Your task to perform on an android device: Open Google Maps and go to "Timeline" Image 0: 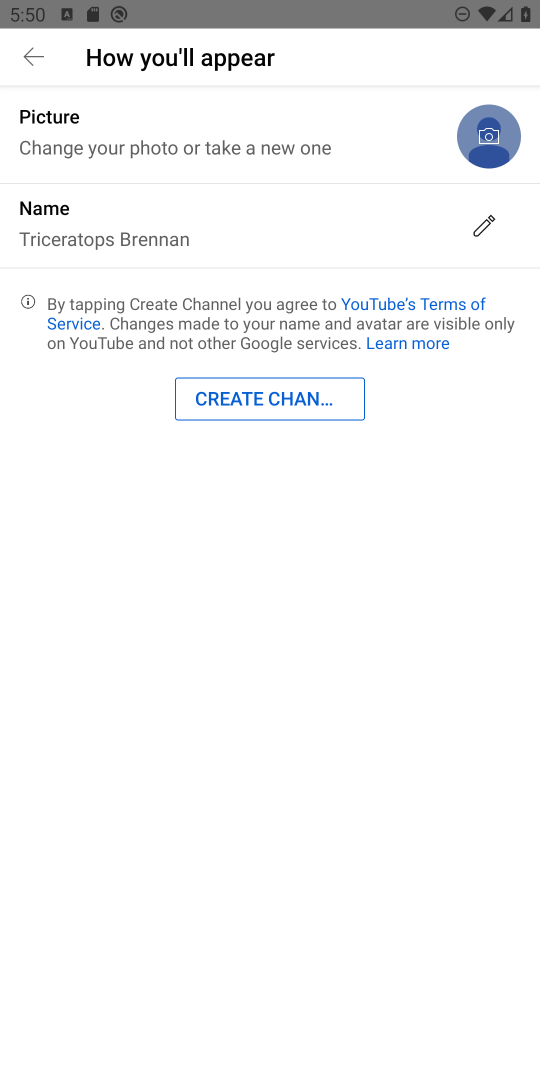
Step 0: press home button
Your task to perform on an android device: Open Google Maps and go to "Timeline" Image 1: 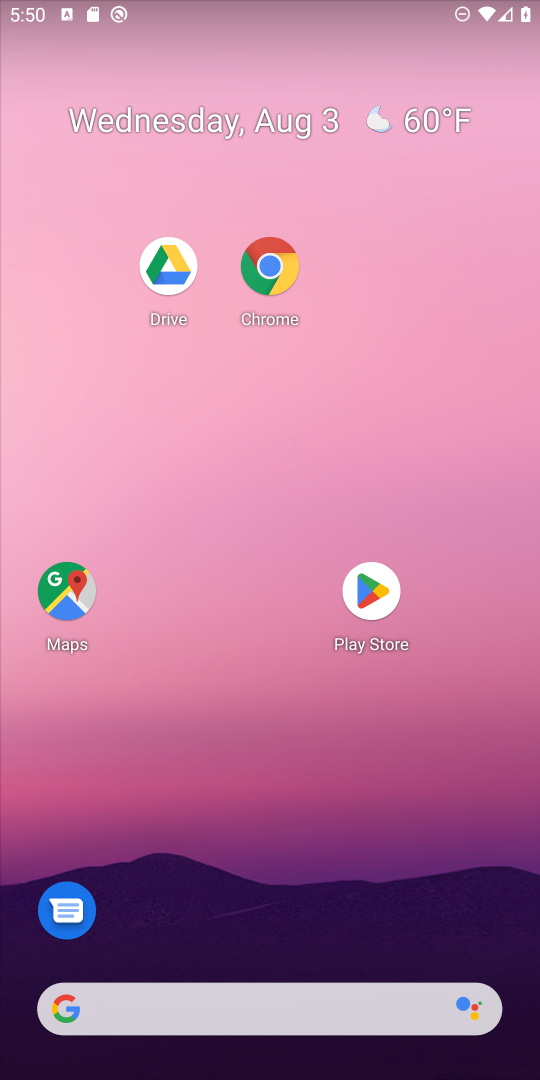
Step 1: drag from (370, 807) to (463, 68)
Your task to perform on an android device: Open Google Maps and go to "Timeline" Image 2: 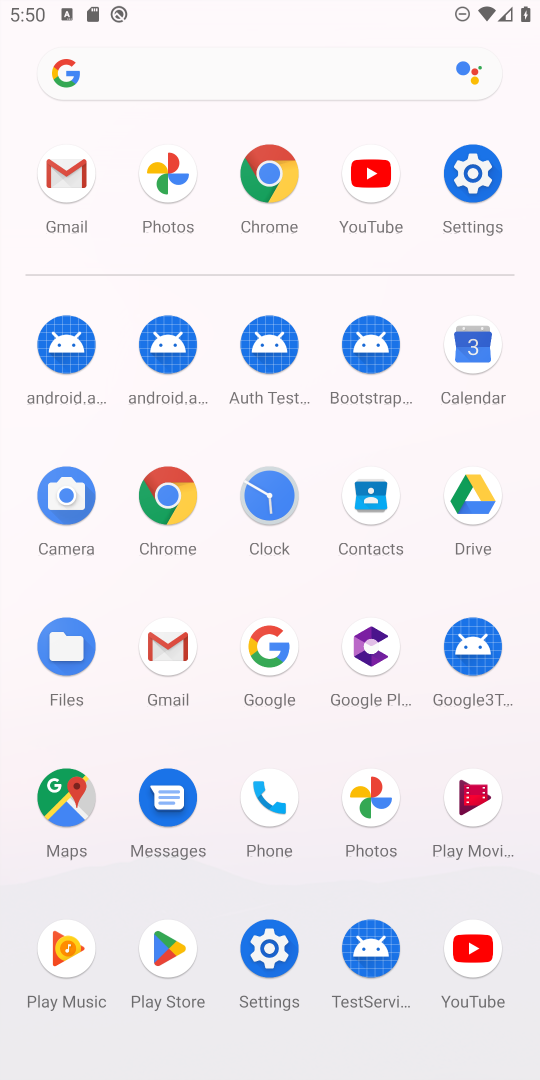
Step 2: click (66, 801)
Your task to perform on an android device: Open Google Maps and go to "Timeline" Image 3: 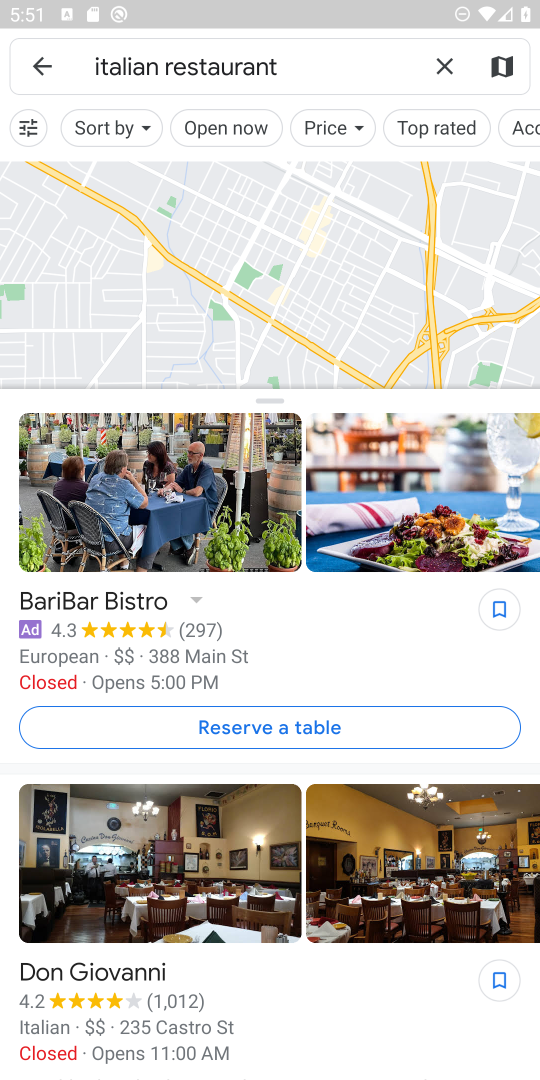
Step 3: press back button
Your task to perform on an android device: Open Google Maps and go to "Timeline" Image 4: 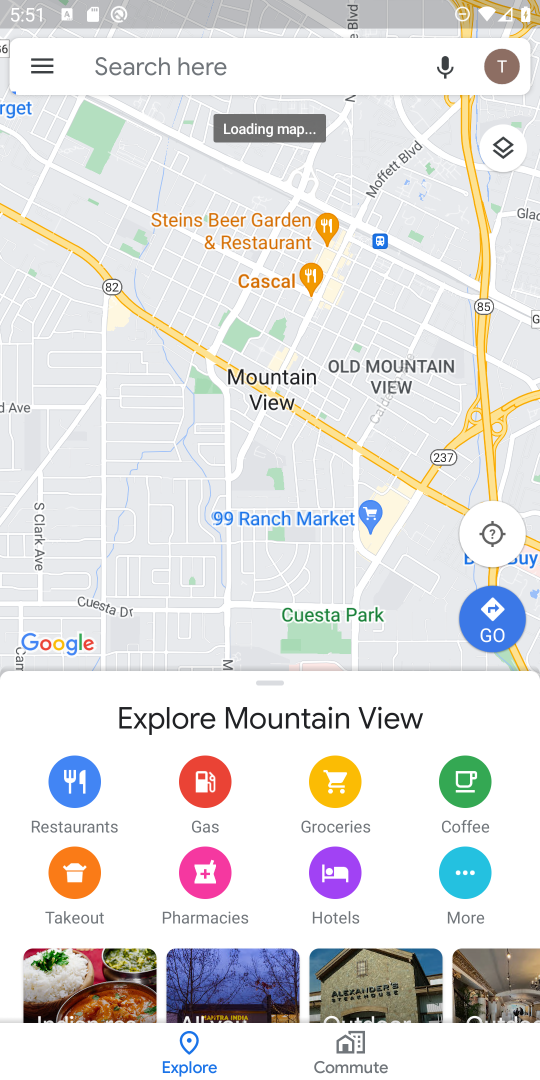
Step 4: click (37, 55)
Your task to perform on an android device: Open Google Maps and go to "Timeline" Image 5: 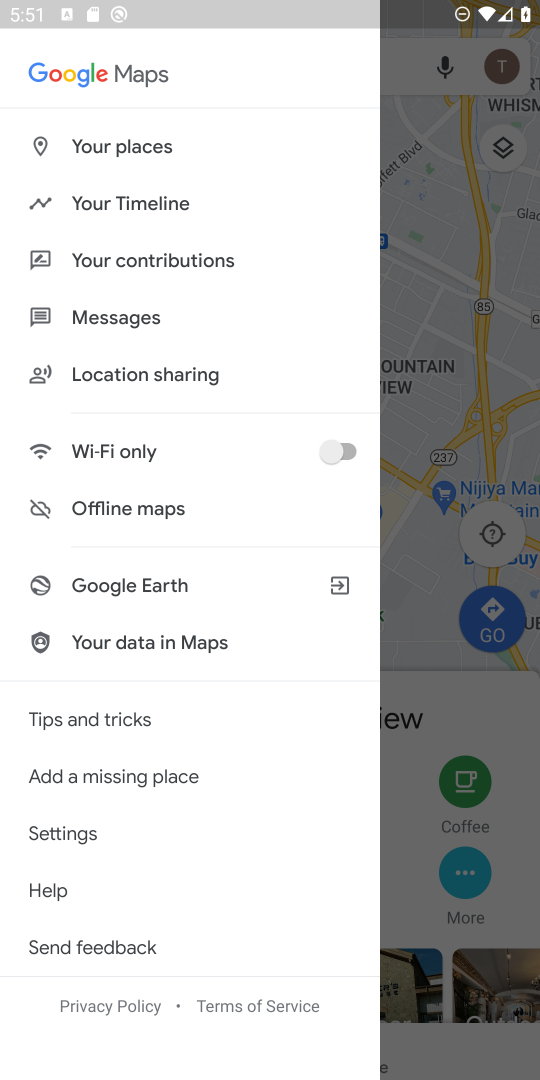
Step 5: click (130, 193)
Your task to perform on an android device: Open Google Maps and go to "Timeline" Image 6: 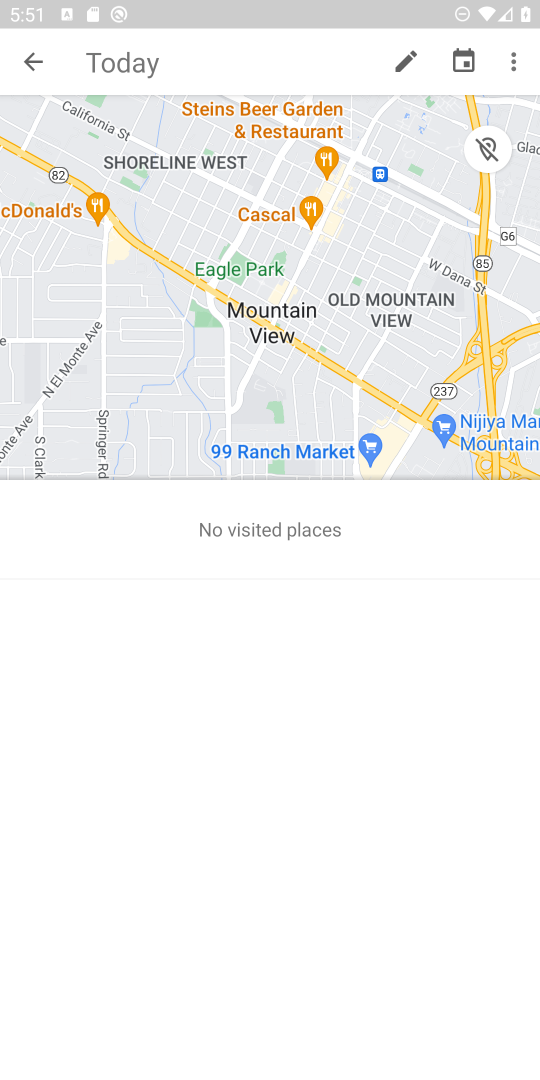
Step 6: task complete